Your task to perform on an android device: Open Chrome and go to the settings page Image 0: 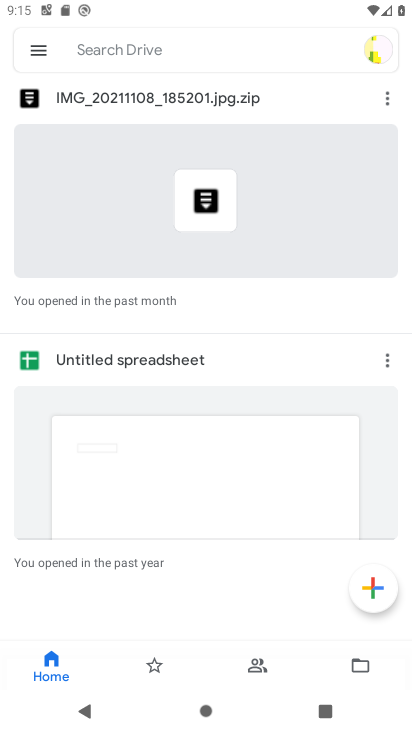
Step 0: press home button
Your task to perform on an android device: Open Chrome and go to the settings page Image 1: 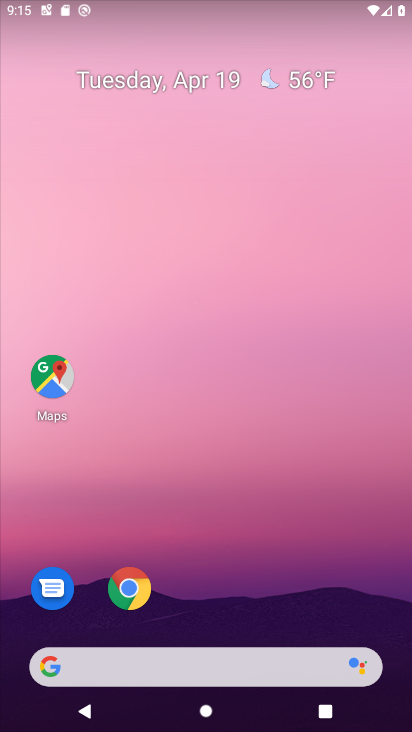
Step 1: click (127, 581)
Your task to perform on an android device: Open Chrome and go to the settings page Image 2: 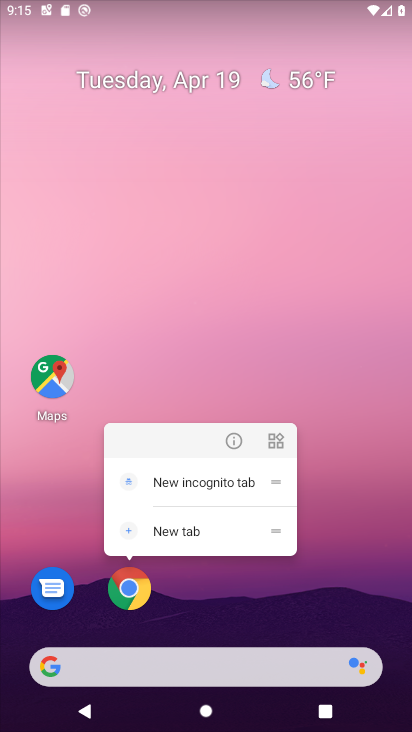
Step 2: click (174, 591)
Your task to perform on an android device: Open Chrome and go to the settings page Image 3: 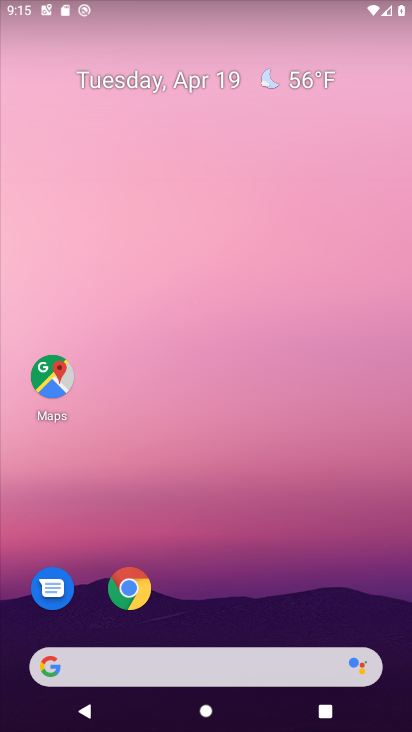
Step 3: click (127, 583)
Your task to perform on an android device: Open Chrome and go to the settings page Image 4: 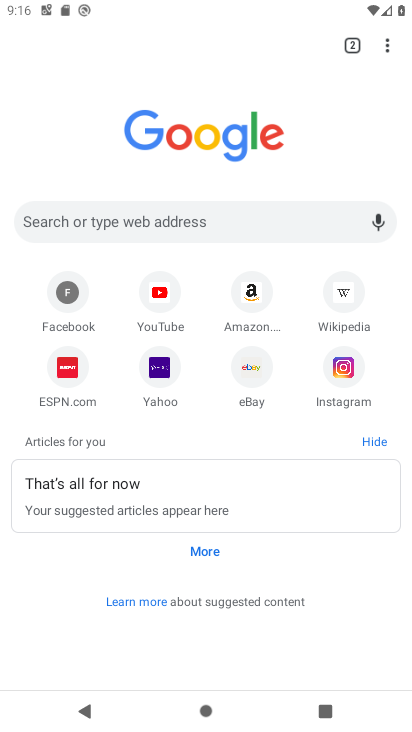
Step 4: click (386, 40)
Your task to perform on an android device: Open Chrome and go to the settings page Image 5: 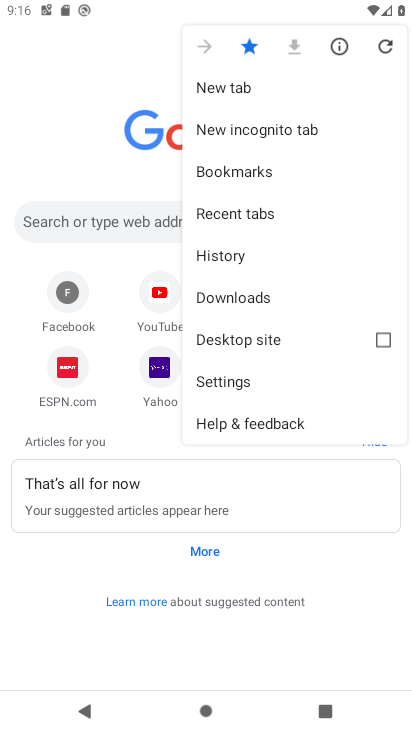
Step 5: click (253, 382)
Your task to perform on an android device: Open Chrome and go to the settings page Image 6: 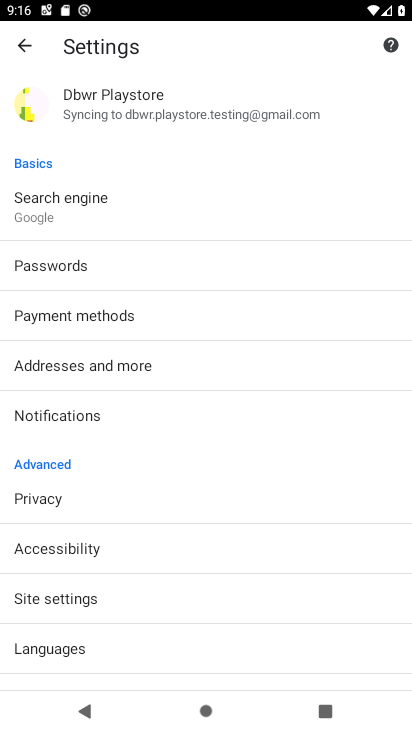
Step 6: task complete